Your task to perform on an android device: Open Android settings Image 0: 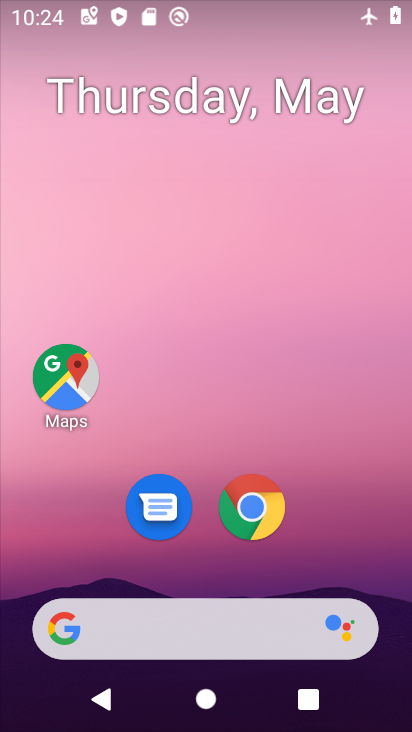
Step 0: drag from (271, 628) to (270, 66)
Your task to perform on an android device: Open Android settings Image 1: 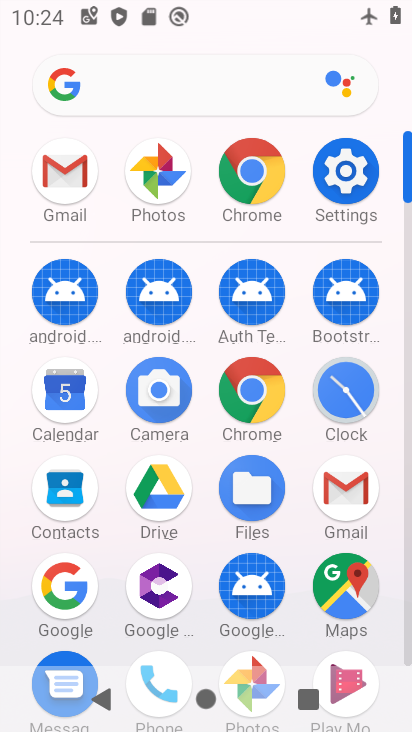
Step 1: click (347, 169)
Your task to perform on an android device: Open Android settings Image 2: 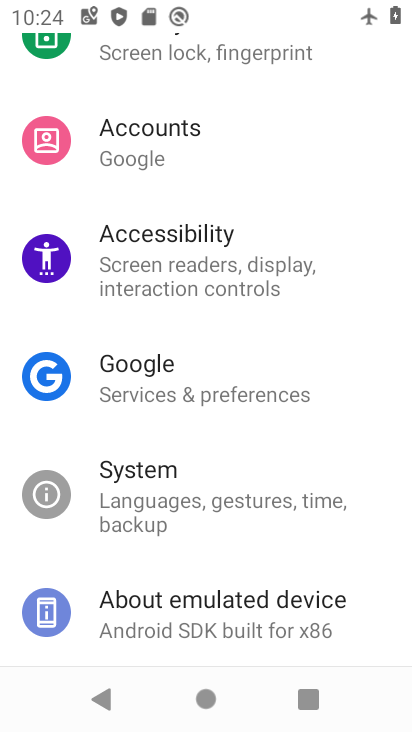
Step 2: click (194, 599)
Your task to perform on an android device: Open Android settings Image 3: 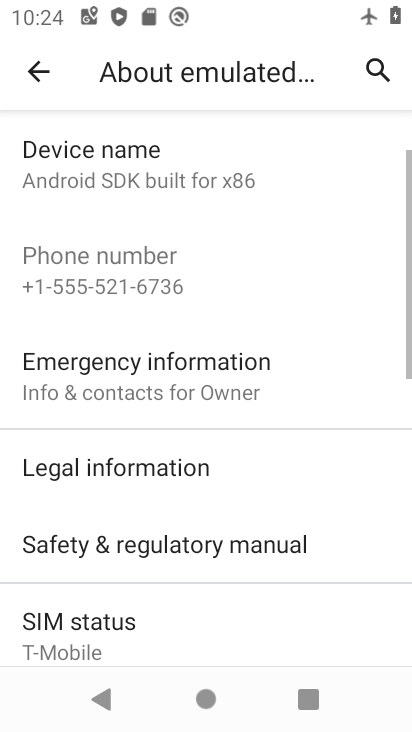
Step 3: drag from (167, 530) to (181, 307)
Your task to perform on an android device: Open Android settings Image 4: 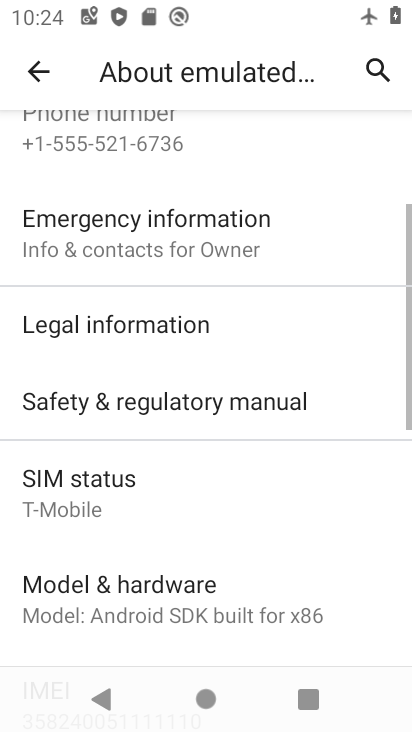
Step 4: drag from (185, 564) to (220, 142)
Your task to perform on an android device: Open Android settings Image 5: 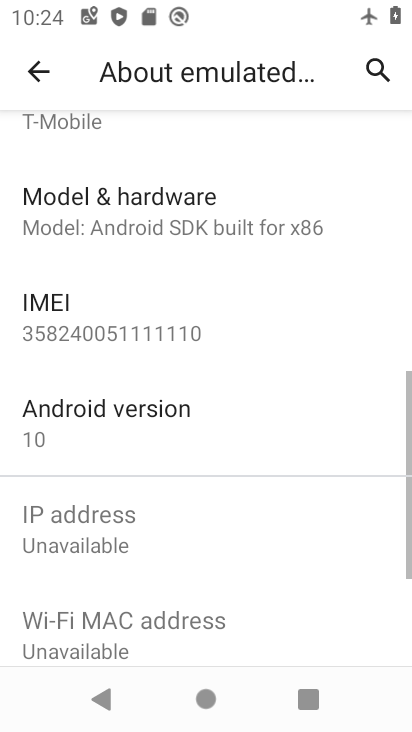
Step 5: click (183, 433)
Your task to perform on an android device: Open Android settings Image 6: 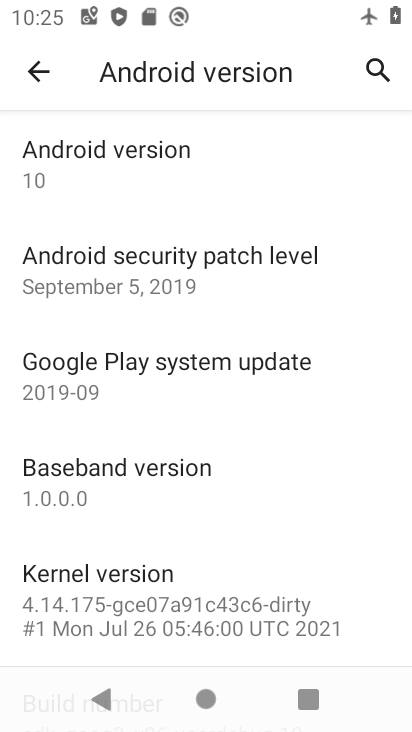
Step 6: click (195, 157)
Your task to perform on an android device: Open Android settings Image 7: 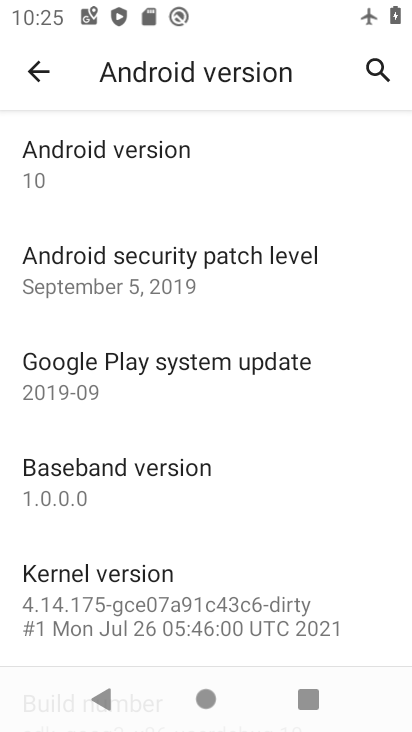
Step 7: task complete